Your task to perform on an android device: Open network settings Image 0: 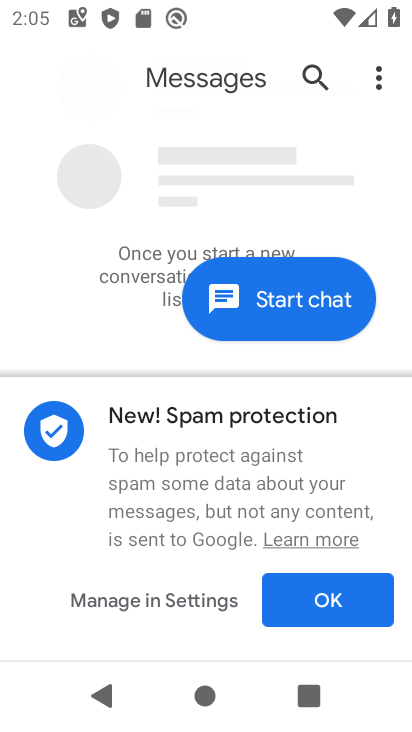
Step 0: press back button
Your task to perform on an android device: Open network settings Image 1: 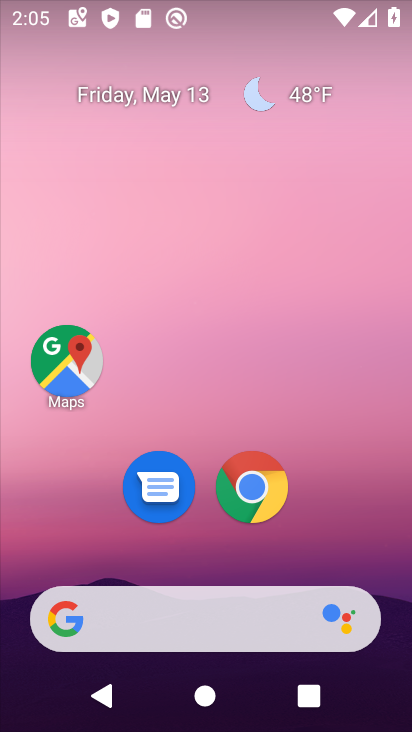
Step 1: drag from (133, 578) to (295, 51)
Your task to perform on an android device: Open network settings Image 2: 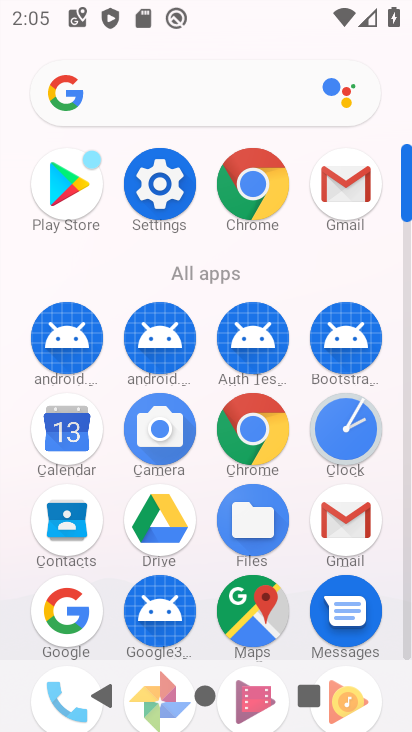
Step 2: drag from (169, 568) to (249, 371)
Your task to perform on an android device: Open network settings Image 3: 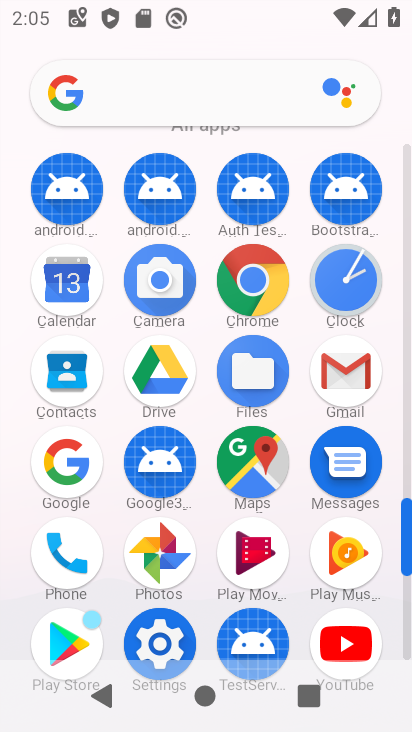
Step 3: click (156, 632)
Your task to perform on an android device: Open network settings Image 4: 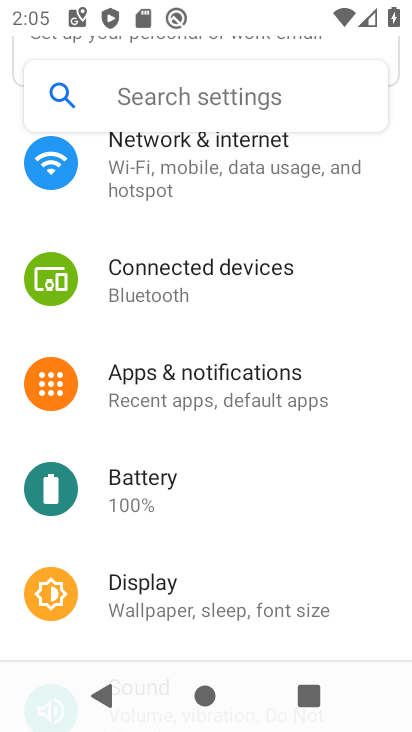
Step 4: drag from (294, 176) to (253, 424)
Your task to perform on an android device: Open network settings Image 5: 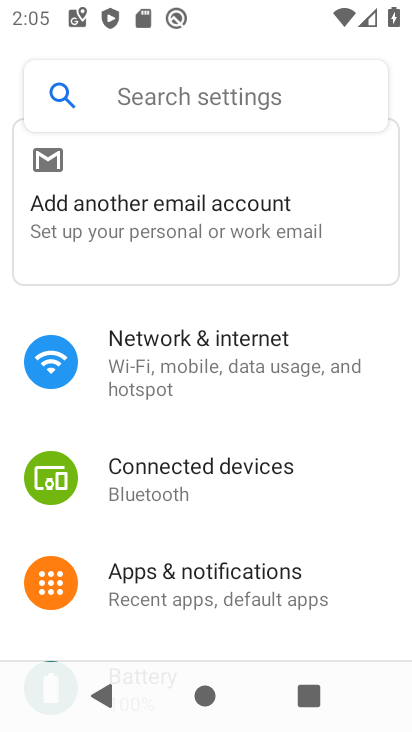
Step 5: click (260, 361)
Your task to perform on an android device: Open network settings Image 6: 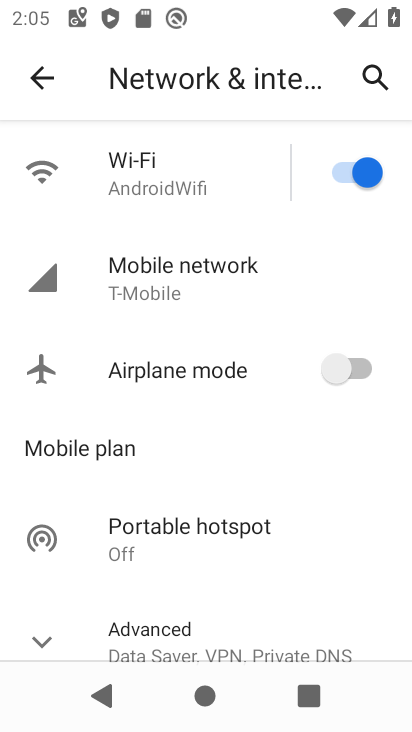
Step 6: click (211, 264)
Your task to perform on an android device: Open network settings Image 7: 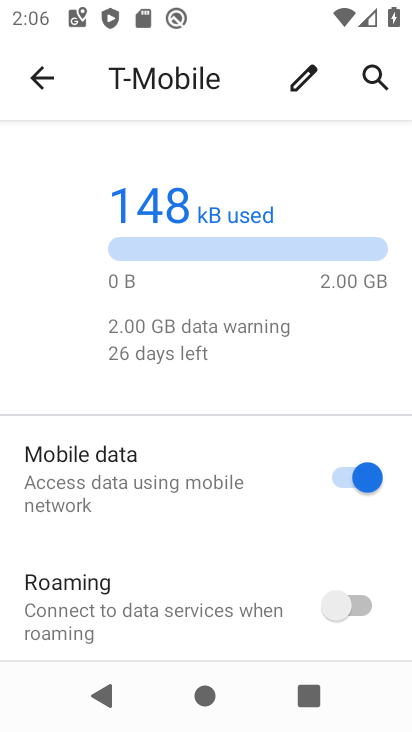
Step 7: task complete